Your task to perform on an android device: stop showing notifications on the lock screen Image 0: 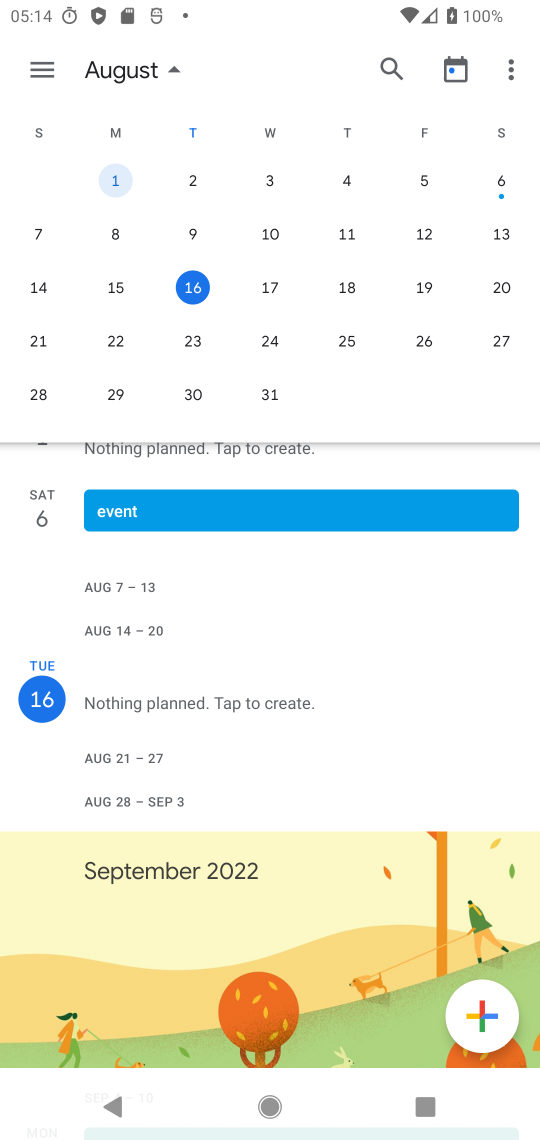
Step 0: press home button
Your task to perform on an android device: stop showing notifications on the lock screen Image 1: 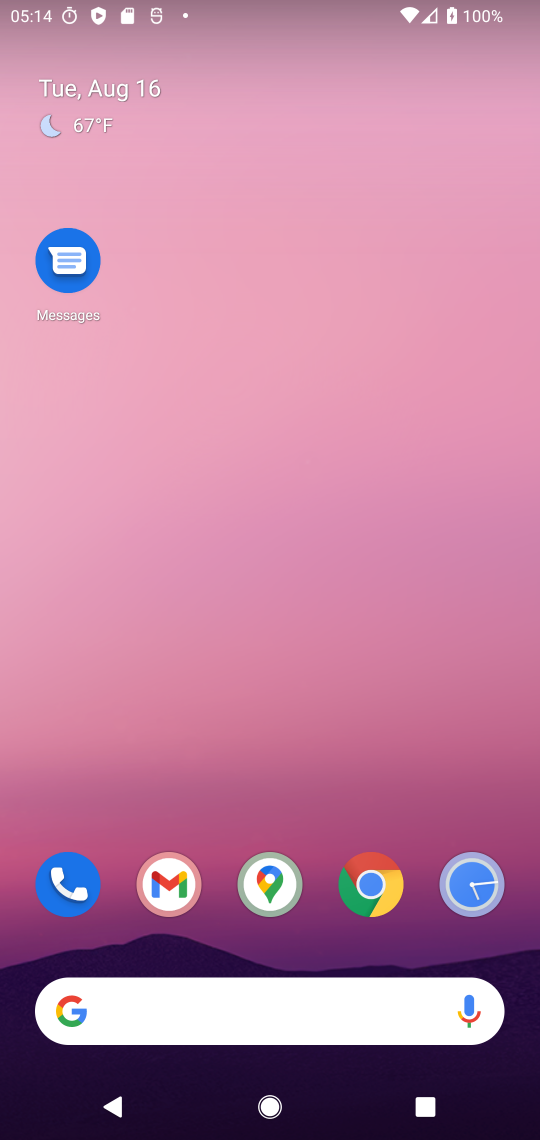
Step 1: drag from (34, 1083) to (475, 280)
Your task to perform on an android device: stop showing notifications on the lock screen Image 2: 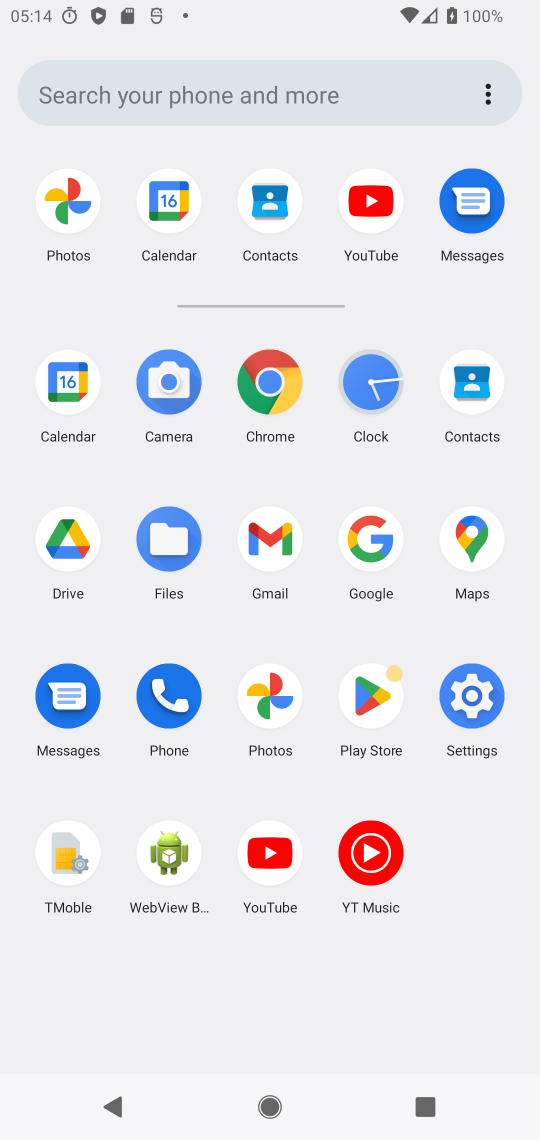
Step 2: click (492, 709)
Your task to perform on an android device: stop showing notifications on the lock screen Image 3: 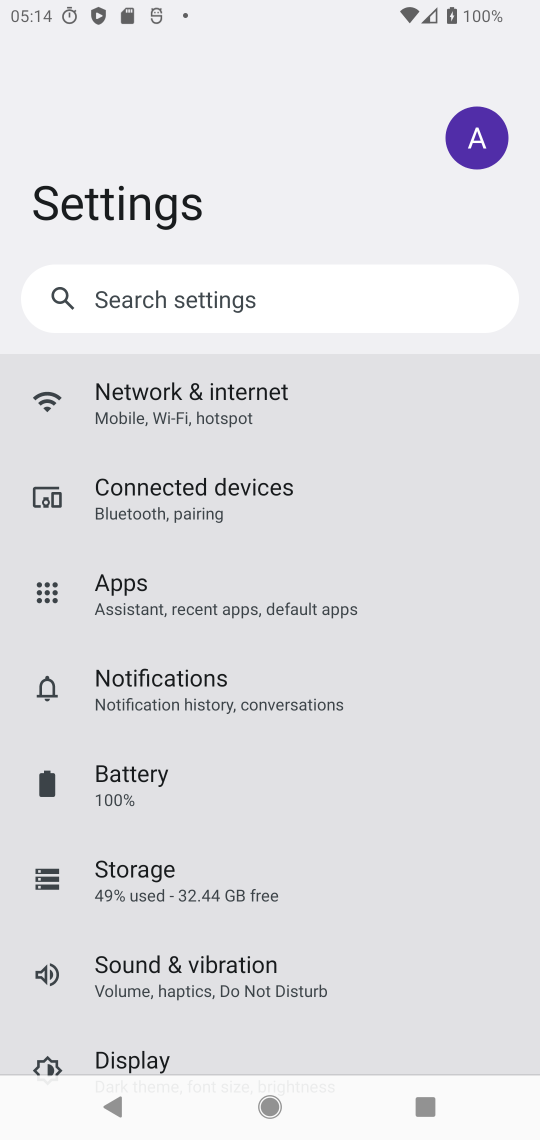
Step 3: drag from (387, 960) to (266, 325)
Your task to perform on an android device: stop showing notifications on the lock screen Image 4: 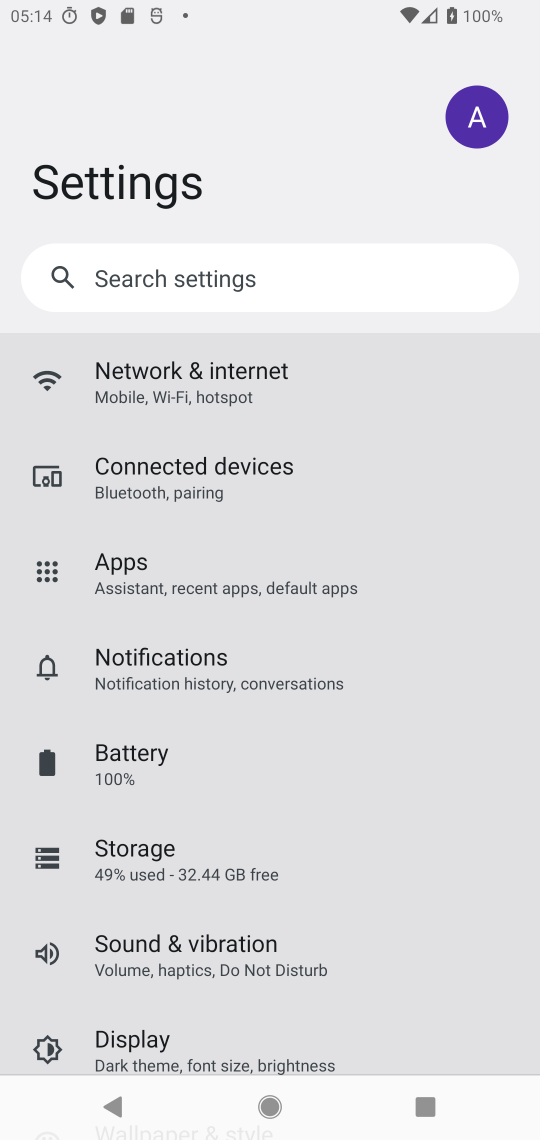
Step 4: drag from (415, 1008) to (445, 449)
Your task to perform on an android device: stop showing notifications on the lock screen Image 5: 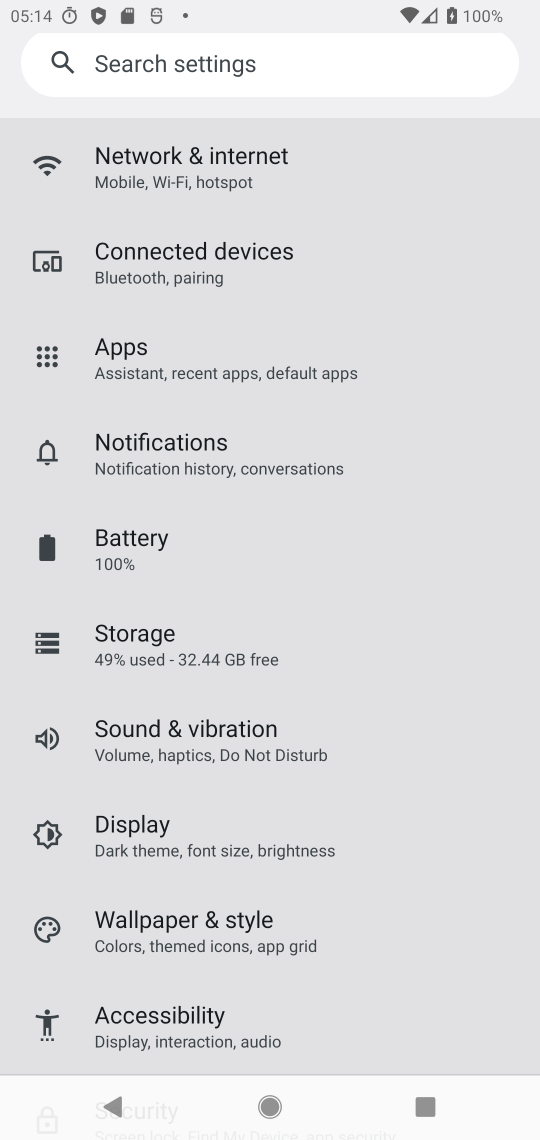
Step 5: click (146, 461)
Your task to perform on an android device: stop showing notifications on the lock screen Image 6: 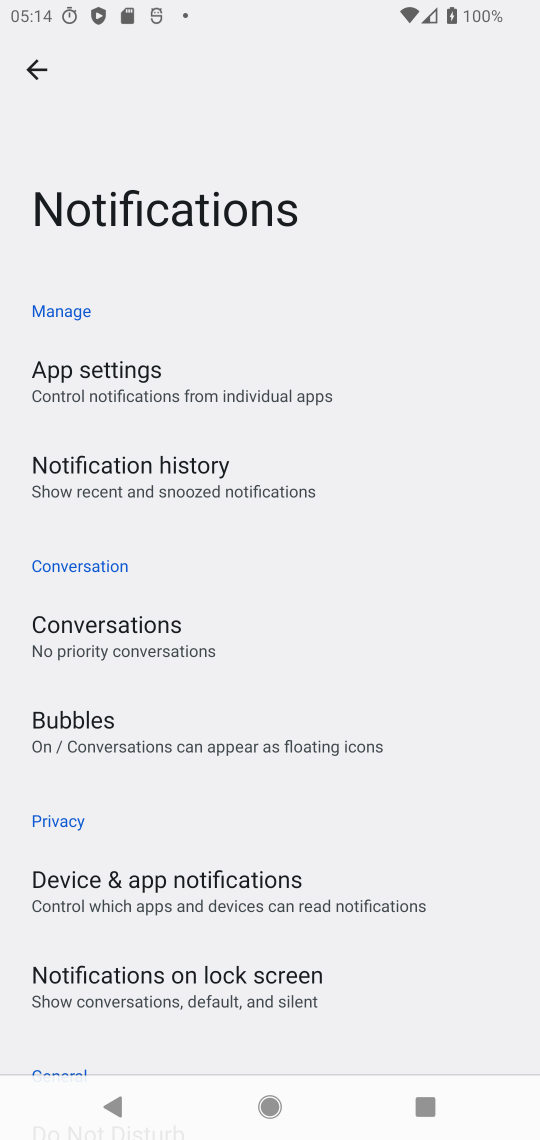
Step 6: click (244, 992)
Your task to perform on an android device: stop showing notifications on the lock screen Image 7: 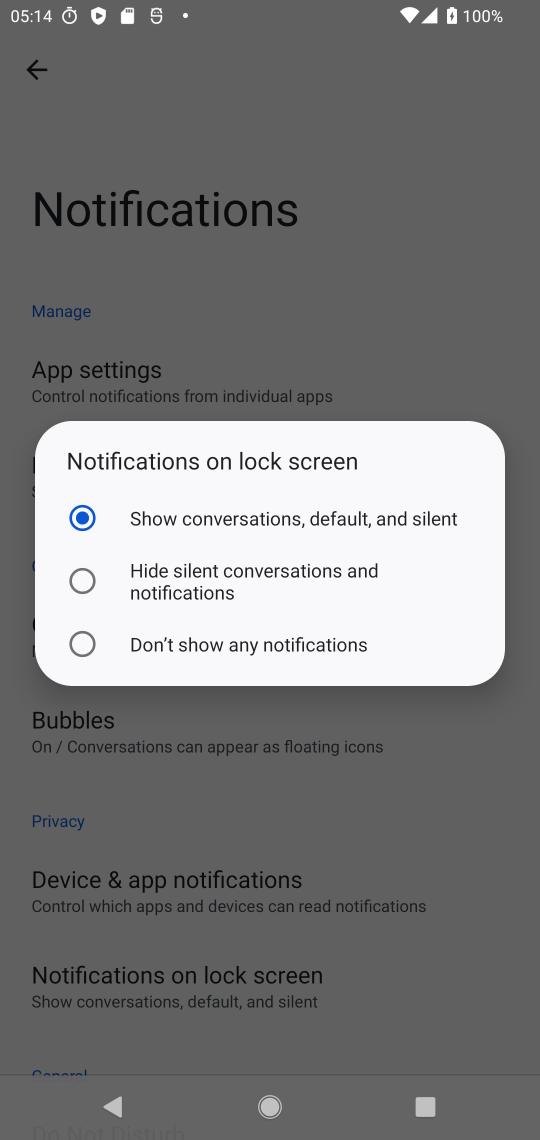
Step 7: task complete